Your task to perform on an android device: turn off picture-in-picture Image 0: 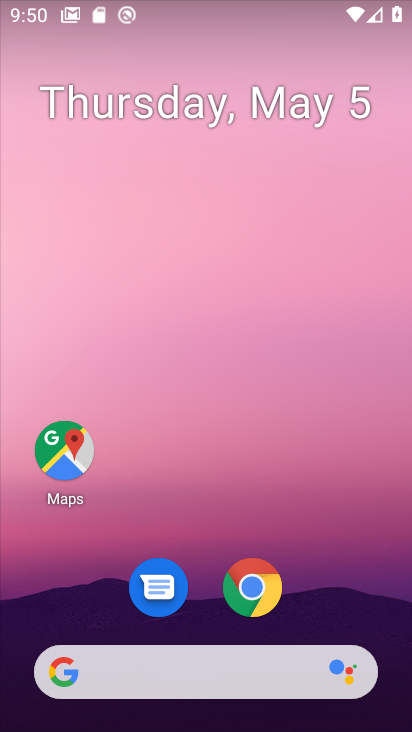
Step 0: drag from (98, 636) to (178, 266)
Your task to perform on an android device: turn off picture-in-picture Image 1: 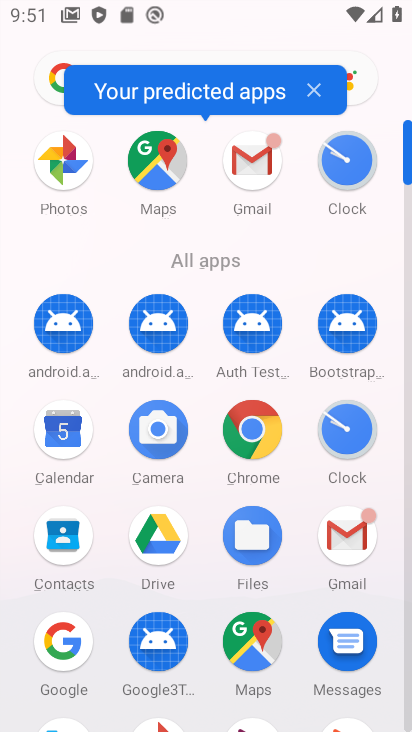
Step 1: drag from (206, 515) to (216, 463)
Your task to perform on an android device: turn off picture-in-picture Image 2: 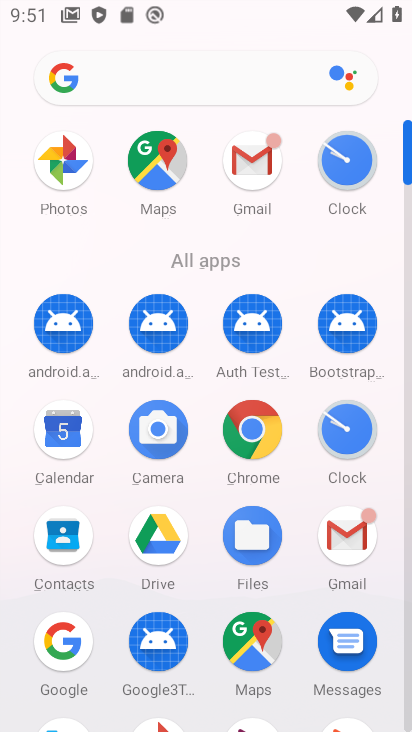
Step 2: drag from (165, 673) to (266, 321)
Your task to perform on an android device: turn off picture-in-picture Image 3: 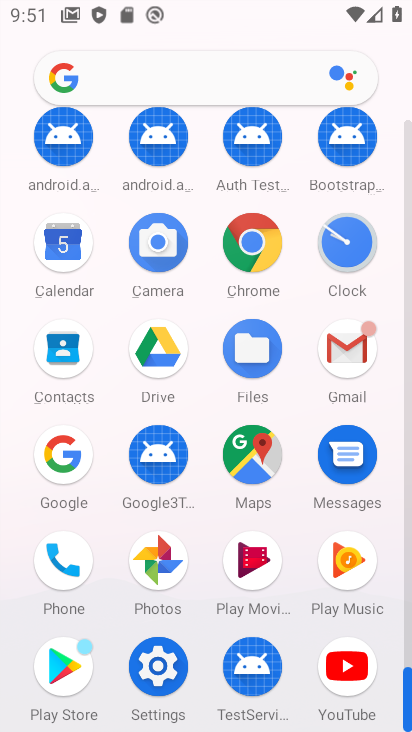
Step 3: click (155, 651)
Your task to perform on an android device: turn off picture-in-picture Image 4: 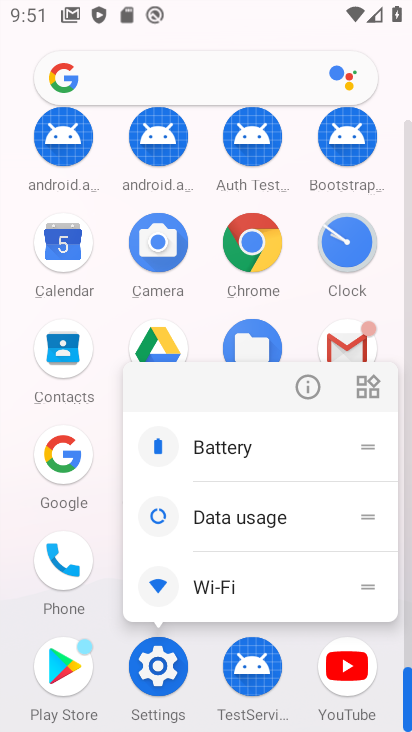
Step 4: click (167, 659)
Your task to perform on an android device: turn off picture-in-picture Image 5: 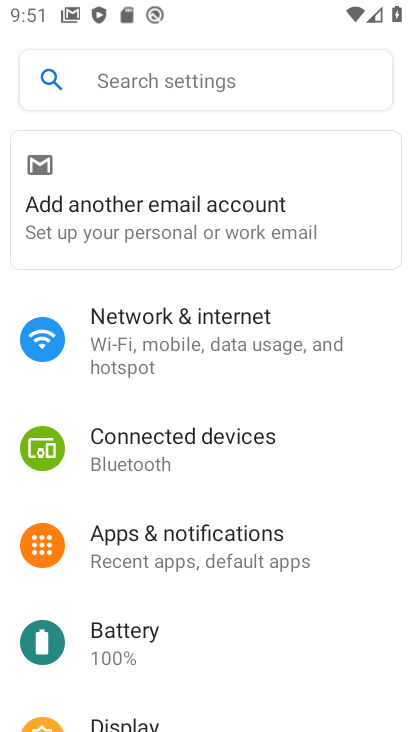
Step 5: drag from (194, 657) to (272, 383)
Your task to perform on an android device: turn off picture-in-picture Image 6: 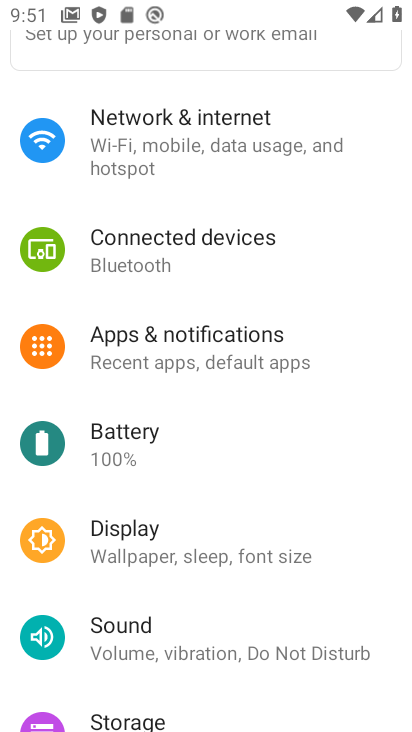
Step 6: click (213, 340)
Your task to perform on an android device: turn off picture-in-picture Image 7: 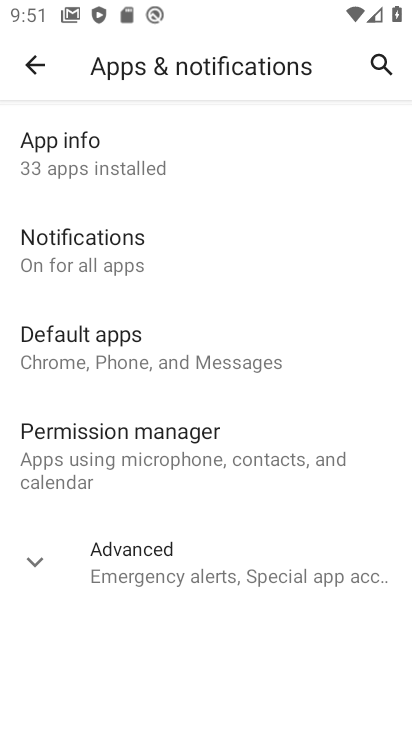
Step 7: click (188, 537)
Your task to perform on an android device: turn off picture-in-picture Image 8: 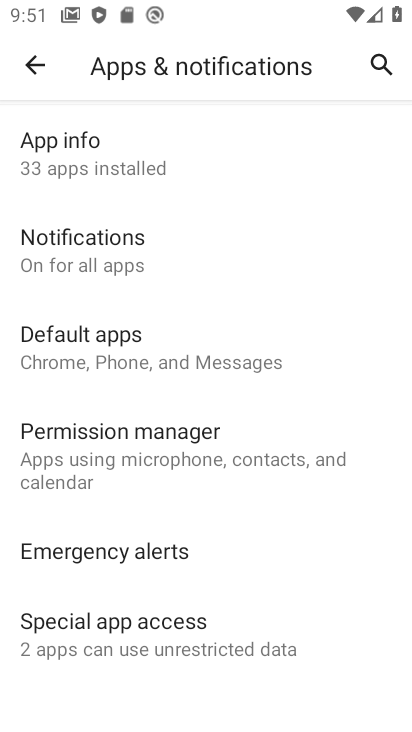
Step 8: drag from (236, 631) to (334, 319)
Your task to perform on an android device: turn off picture-in-picture Image 9: 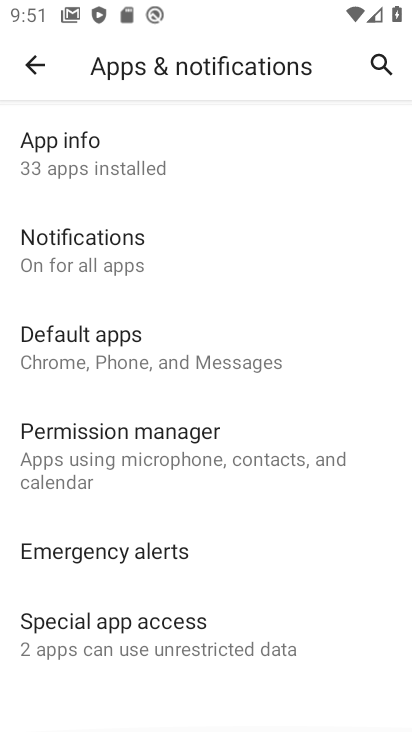
Step 9: click (176, 626)
Your task to perform on an android device: turn off picture-in-picture Image 10: 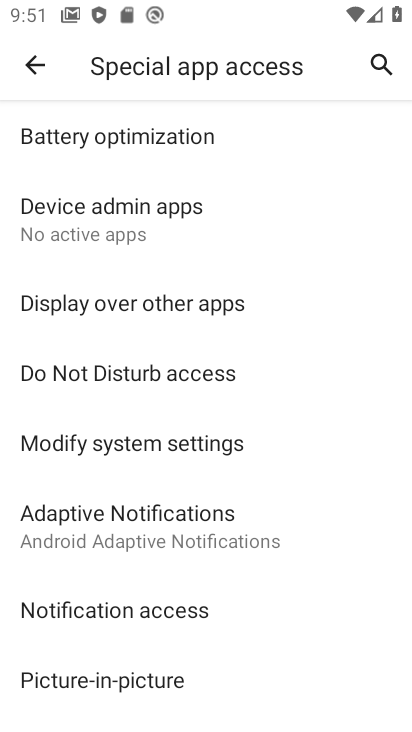
Step 10: click (177, 679)
Your task to perform on an android device: turn off picture-in-picture Image 11: 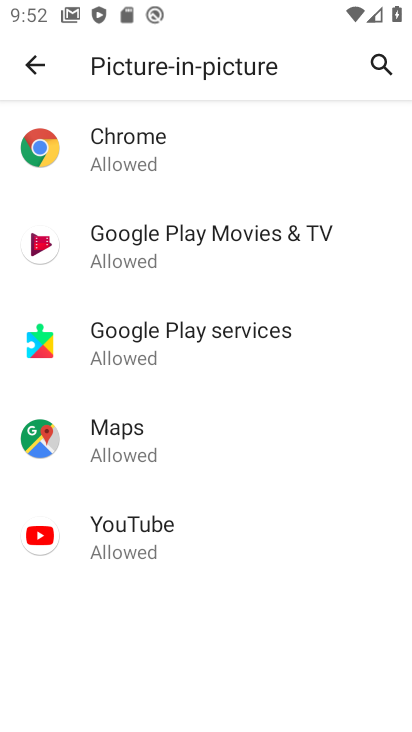
Step 11: click (199, 171)
Your task to perform on an android device: turn off picture-in-picture Image 12: 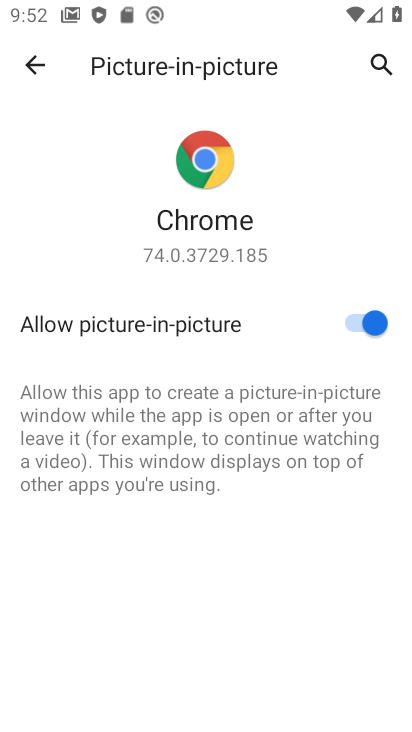
Step 12: click (348, 322)
Your task to perform on an android device: turn off picture-in-picture Image 13: 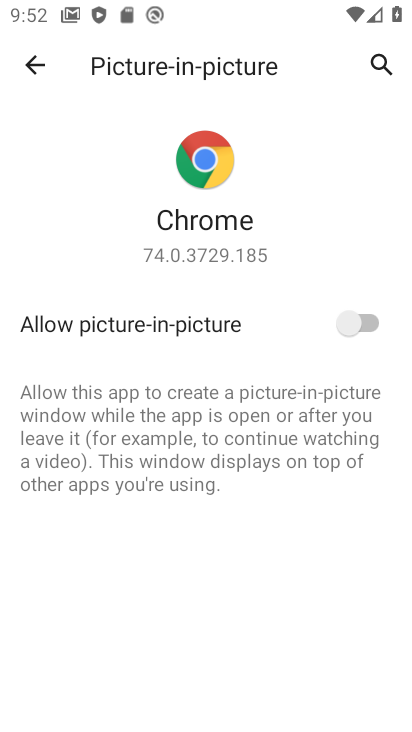
Step 13: click (48, 73)
Your task to perform on an android device: turn off picture-in-picture Image 14: 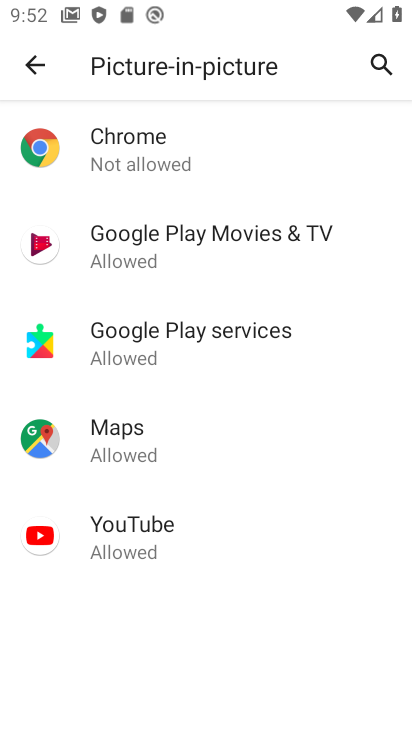
Step 14: click (136, 238)
Your task to perform on an android device: turn off picture-in-picture Image 15: 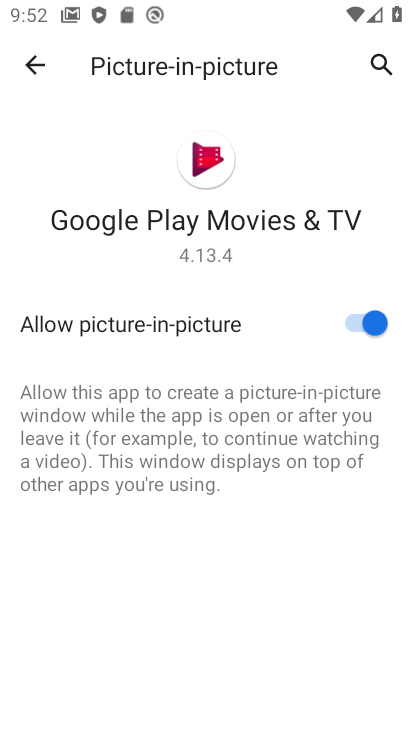
Step 15: click (351, 319)
Your task to perform on an android device: turn off picture-in-picture Image 16: 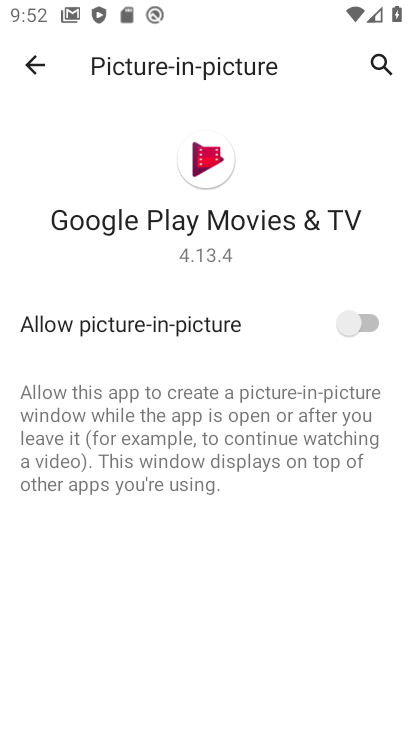
Step 16: click (43, 75)
Your task to perform on an android device: turn off picture-in-picture Image 17: 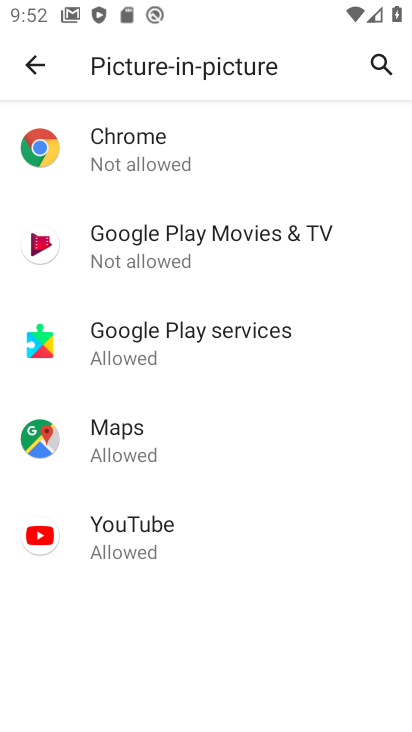
Step 17: click (183, 339)
Your task to perform on an android device: turn off picture-in-picture Image 18: 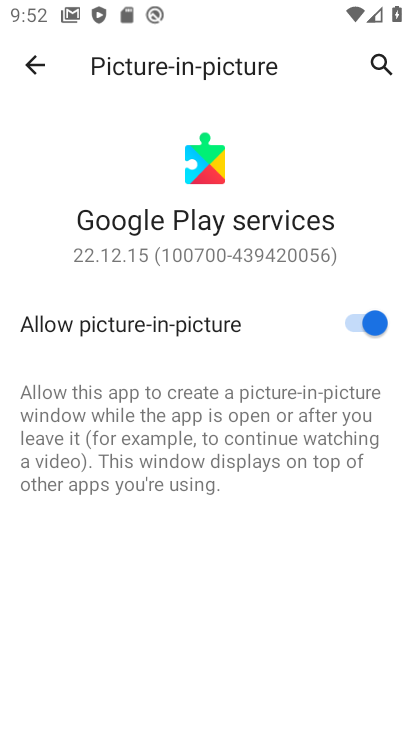
Step 18: click (335, 320)
Your task to perform on an android device: turn off picture-in-picture Image 19: 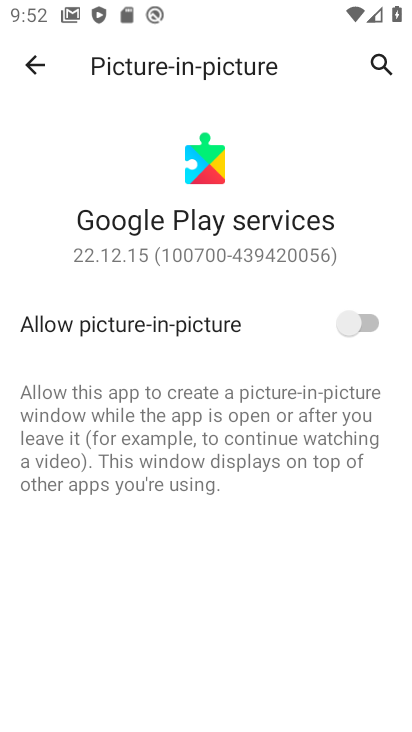
Step 19: click (10, 74)
Your task to perform on an android device: turn off picture-in-picture Image 20: 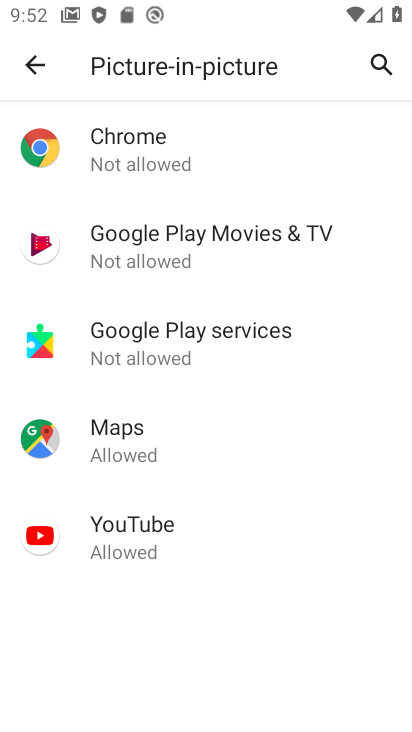
Step 20: click (221, 445)
Your task to perform on an android device: turn off picture-in-picture Image 21: 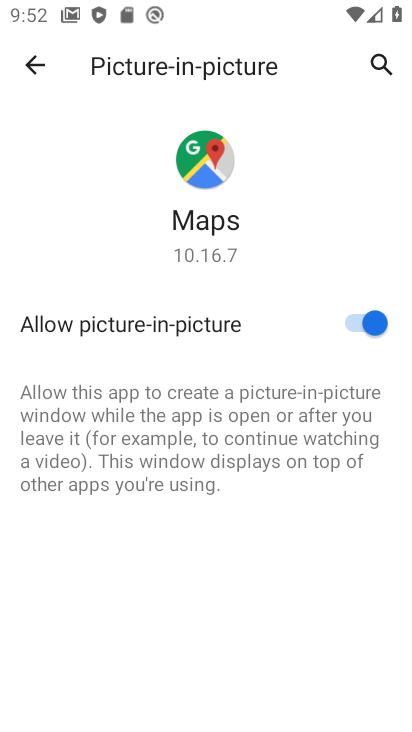
Step 21: click (353, 321)
Your task to perform on an android device: turn off picture-in-picture Image 22: 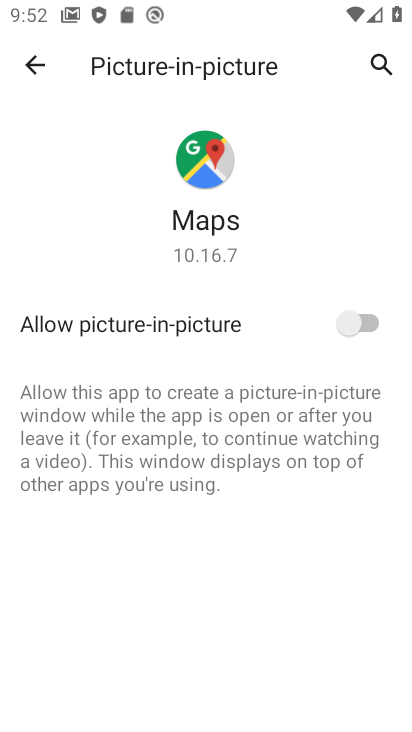
Step 22: click (10, 65)
Your task to perform on an android device: turn off picture-in-picture Image 23: 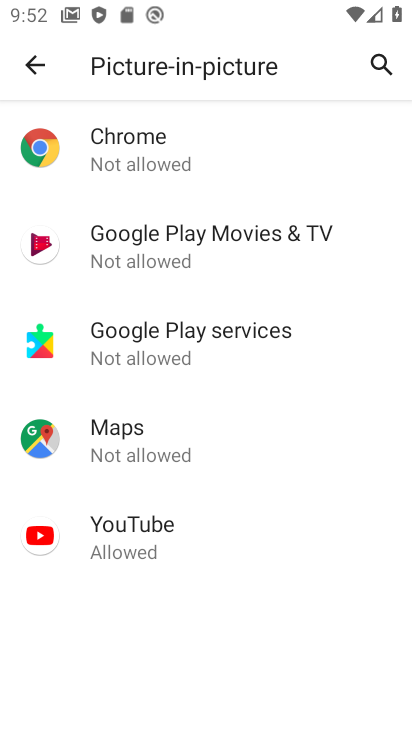
Step 23: click (133, 538)
Your task to perform on an android device: turn off picture-in-picture Image 24: 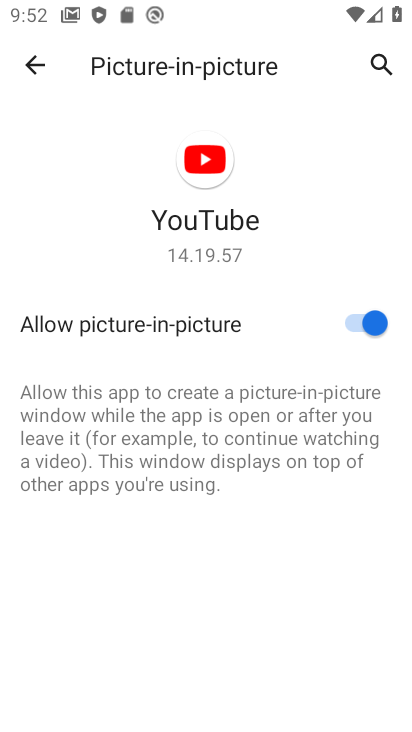
Step 24: click (358, 321)
Your task to perform on an android device: turn off picture-in-picture Image 25: 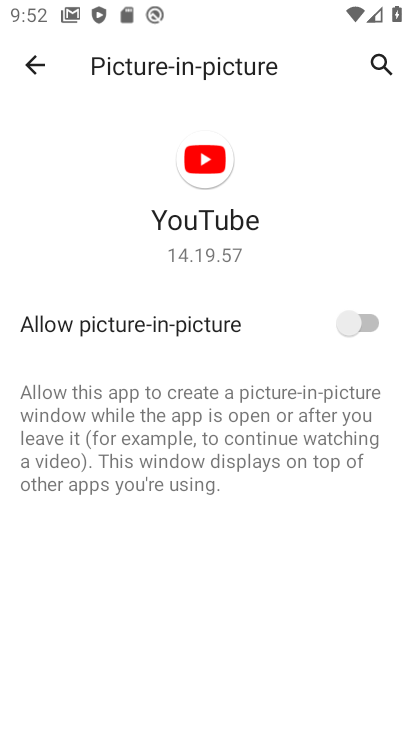
Step 25: task complete